Your task to perform on an android device: Find coffee shops on Maps Image 0: 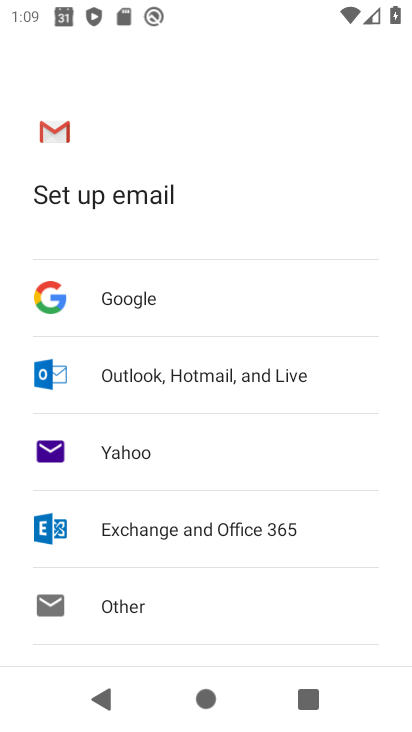
Step 0: press home button
Your task to perform on an android device: Find coffee shops on Maps Image 1: 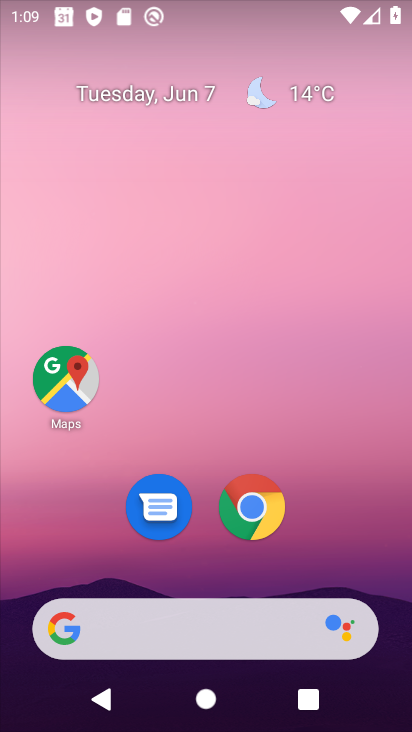
Step 1: click (66, 370)
Your task to perform on an android device: Find coffee shops on Maps Image 2: 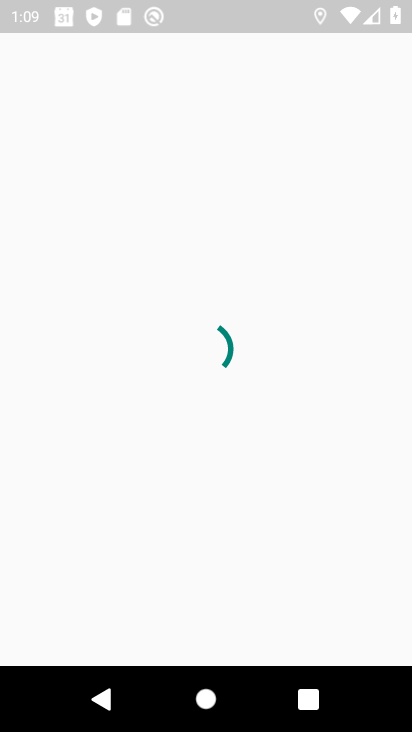
Step 2: click (166, 75)
Your task to perform on an android device: Find coffee shops on Maps Image 3: 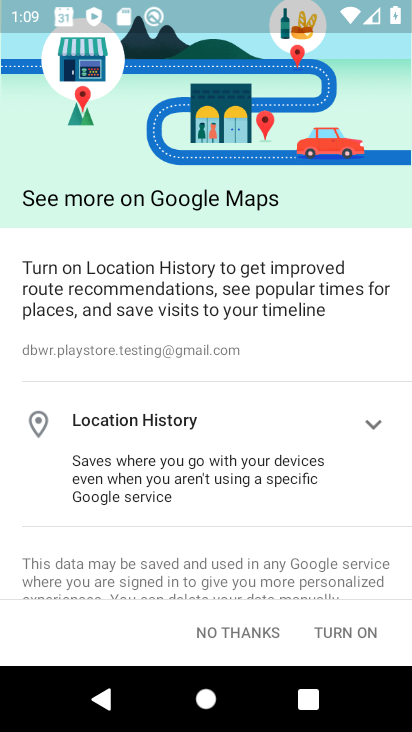
Step 3: click (260, 636)
Your task to perform on an android device: Find coffee shops on Maps Image 4: 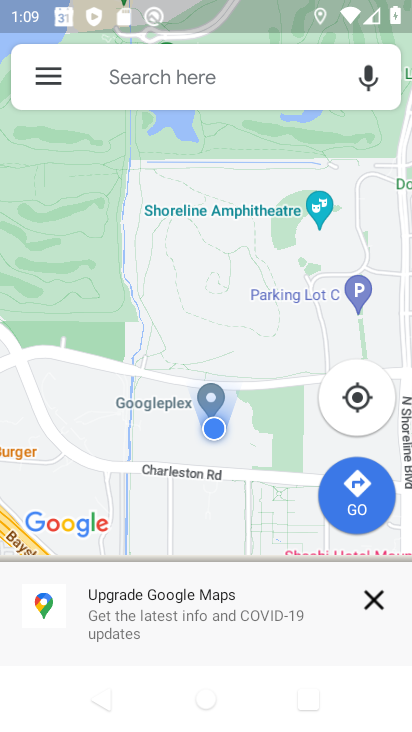
Step 4: click (150, 69)
Your task to perform on an android device: Find coffee shops on Maps Image 5: 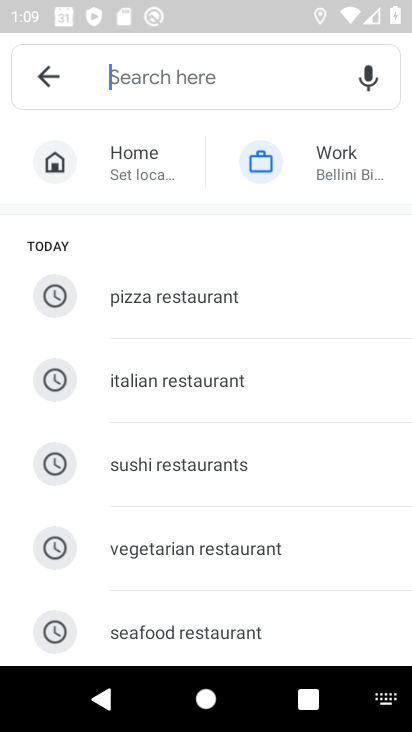
Step 5: type "coffee shop"
Your task to perform on an android device: Find coffee shops on Maps Image 6: 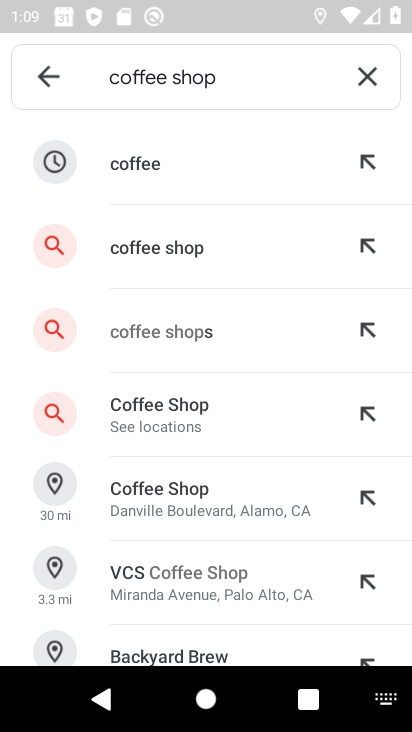
Step 6: click (185, 246)
Your task to perform on an android device: Find coffee shops on Maps Image 7: 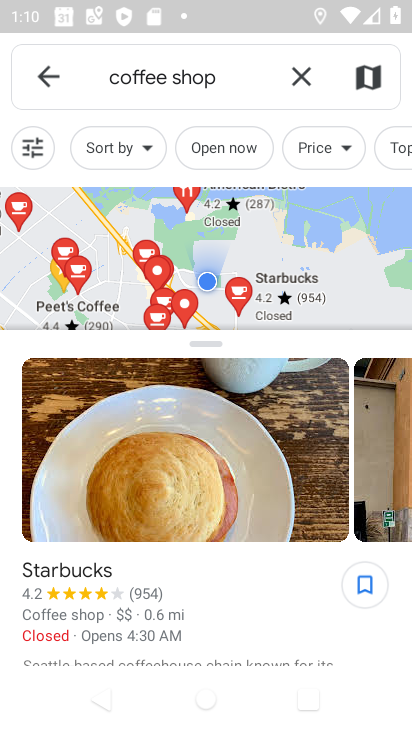
Step 7: task complete